Your task to perform on an android device: Go to network settings Image 0: 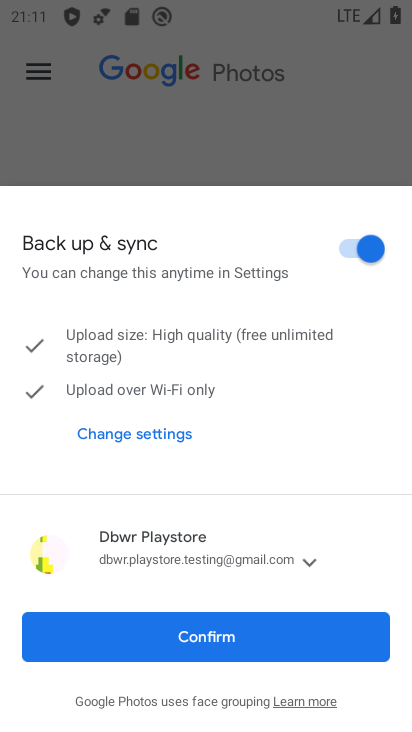
Step 0: press home button
Your task to perform on an android device: Go to network settings Image 1: 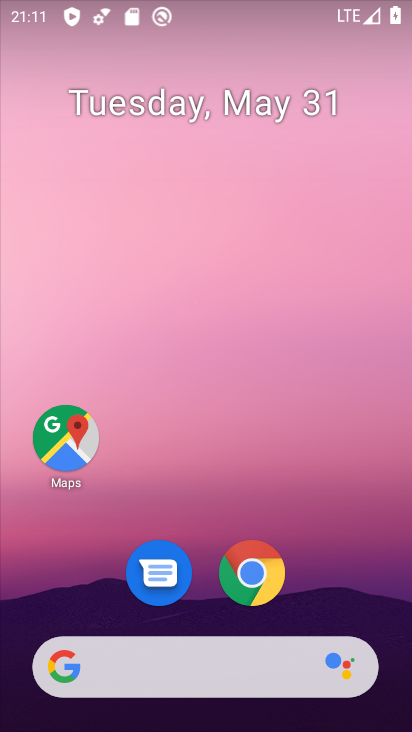
Step 1: drag from (305, 609) to (267, 229)
Your task to perform on an android device: Go to network settings Image 2: 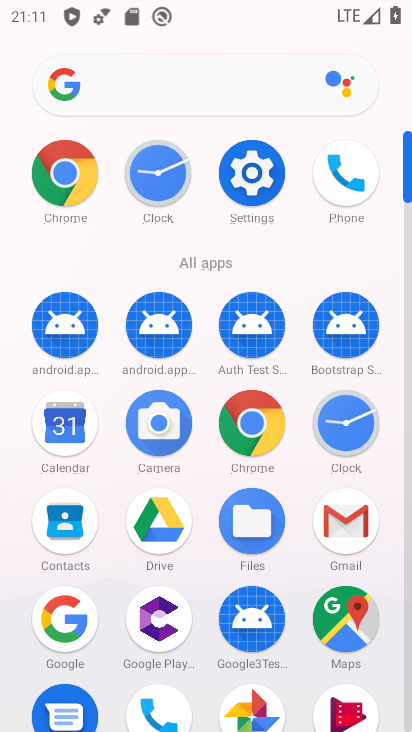
Step 2: click (241, 192)
Your task to perform on an android device: Go to network settings Image 3: 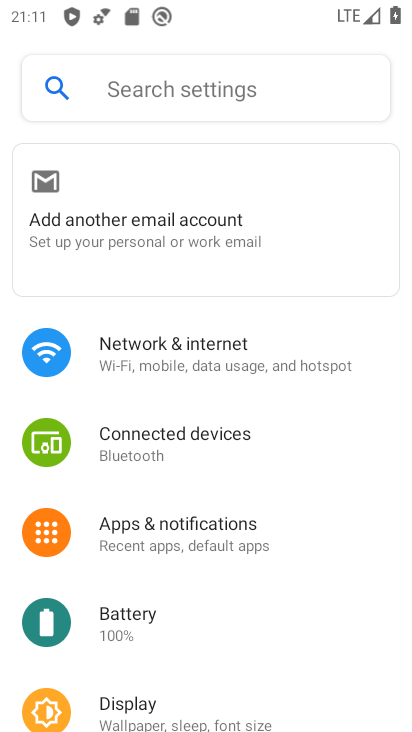
Step 3: click (219, 210)
Your task to perform on an android device: Go to network settings Image 4: 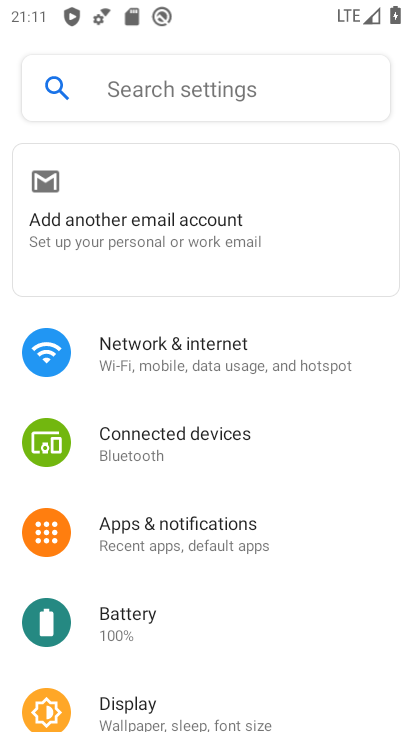
Step 4: click (263, 373)
Your task to perform on an android device: Go to network settings Image 5: 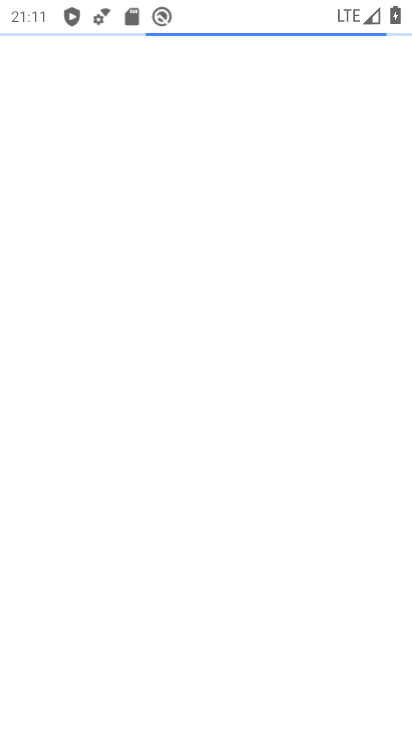
Step 5: press back button
Your task to perform on an android device: Go to network settings Image 6: 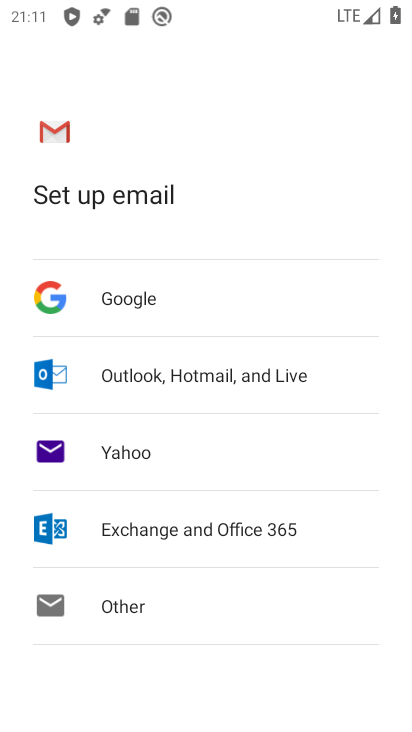
Step 6: press back button
Your task to perform on an android device: Go to network settings Image 7: 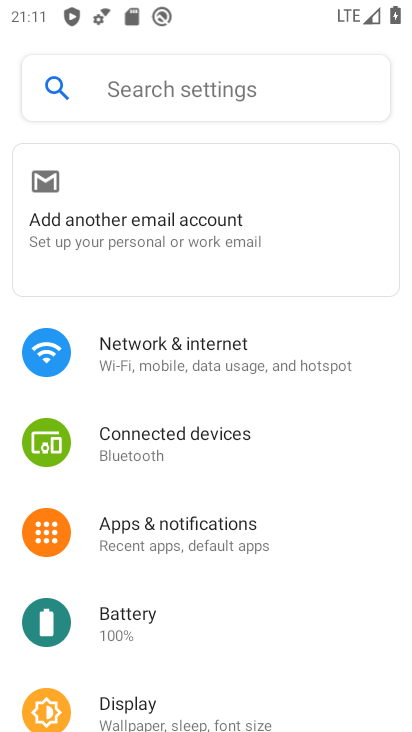
Step 7: click (151, 364)
Your task to perform on an android device: Go to network settings Image 8: 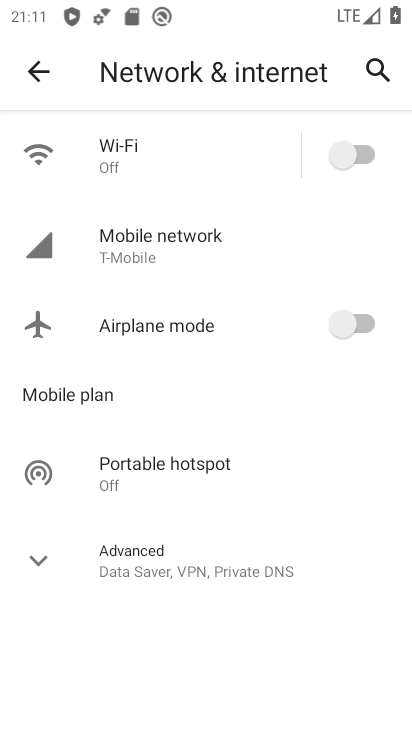
Step 8: task complete